Your task to perform on an android device: see sites visited before in the chrome app Image 0: 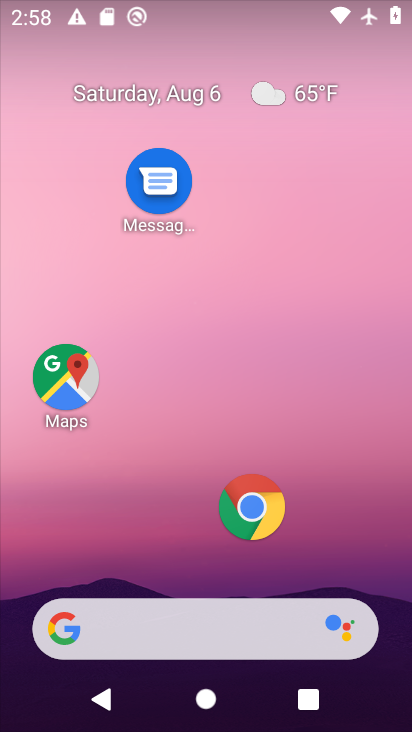
Step 0: click (235, 497)
Your task to perform on an android device: see sites visited before in the chrome app Image 1: 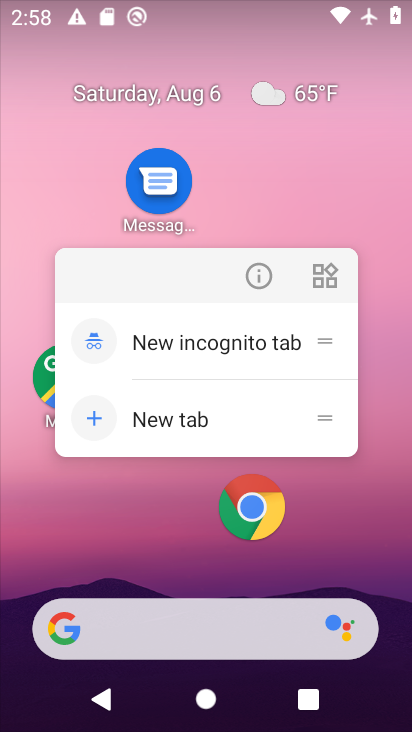
Step 1: click (257, 518)
Your task to perform on an android device: see sites visited before in the chrome app Image 2: 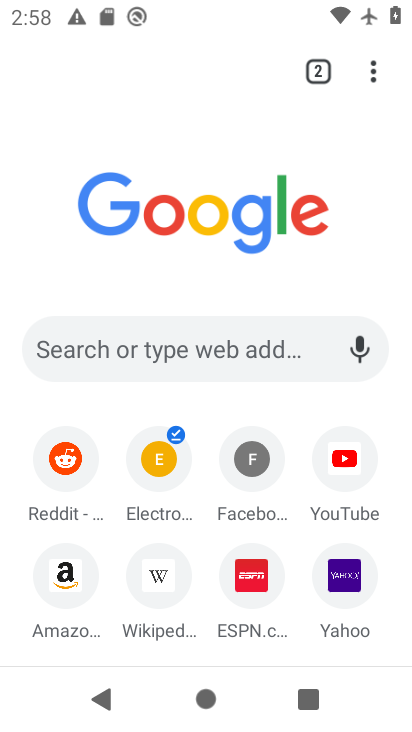
Step 2: click (373, 77)
Your task to perform on an android device: see sites visited before in the chrome app Image 3: 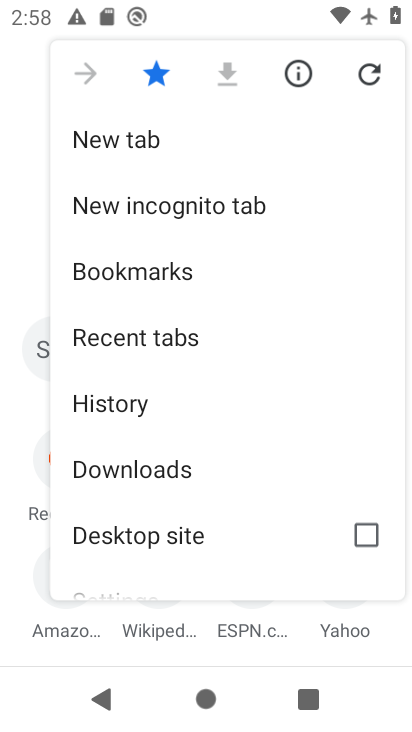
Step 3: drag from (170, 533) to (187, 248)
Your task to perform on an android device: see sites visited before in the chrome app Image 4: 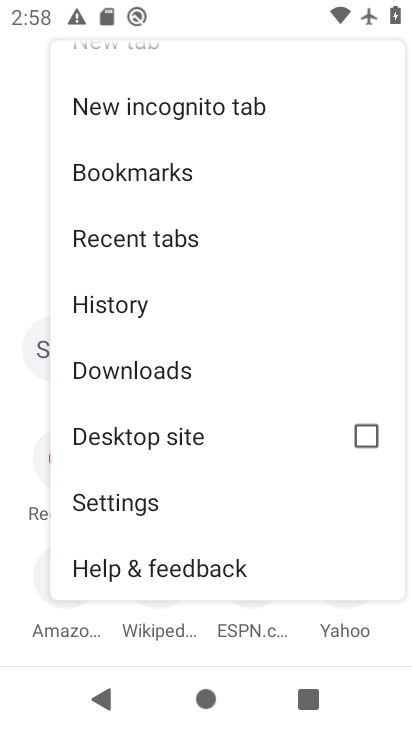
Step 4: click (134, 317)
Your task to perform on an android device: see sites visited before in the chrome app Image 5: 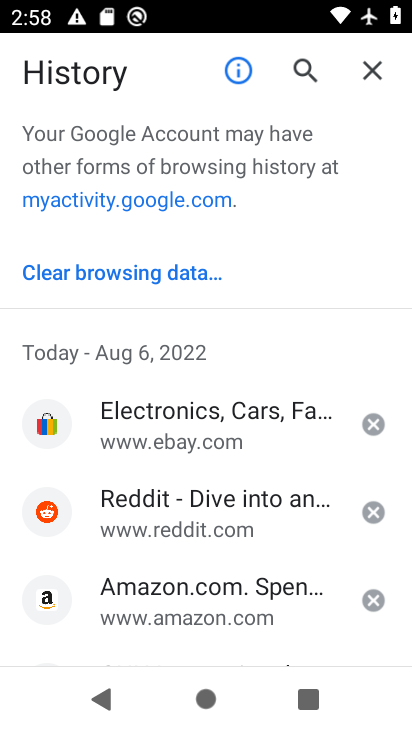
Step 5: task complete